Your task to perform on an android device: Open the map Image 0: 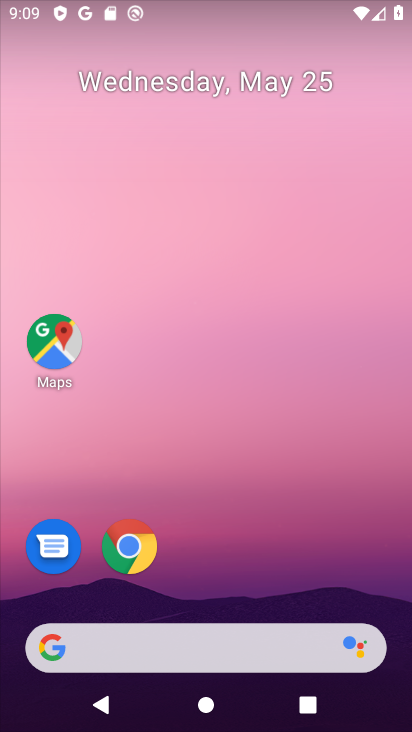
Step 0: click (58, 353)
Your task to perform on an android device: Open the map Image 1: 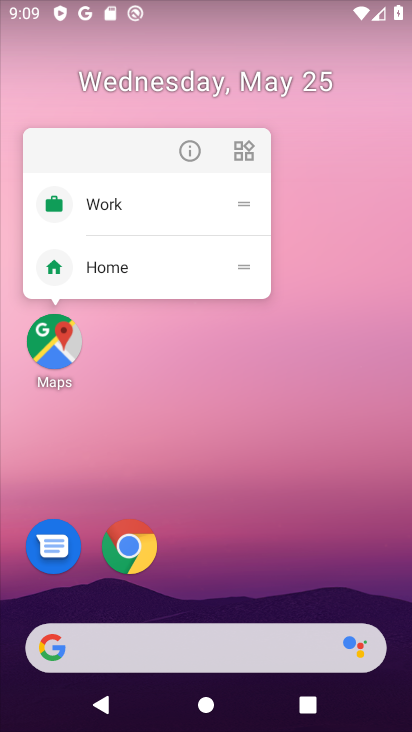
Step 1: click (58, 353)
Your task to perform on an android device: Open the map Image 2: 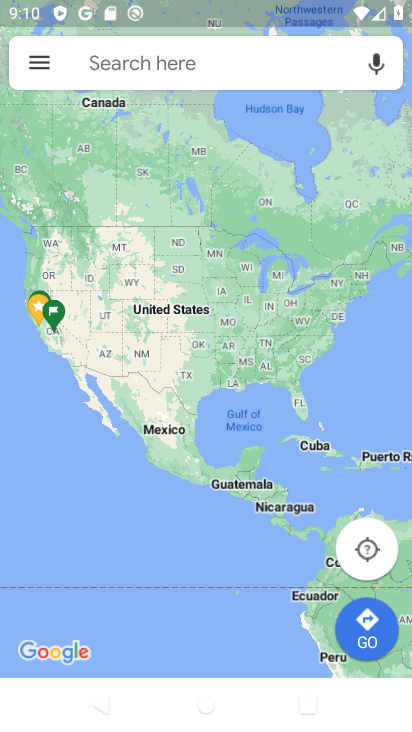
Step 2: task complete